Your task to perform on an android device: turn off location Image 0: 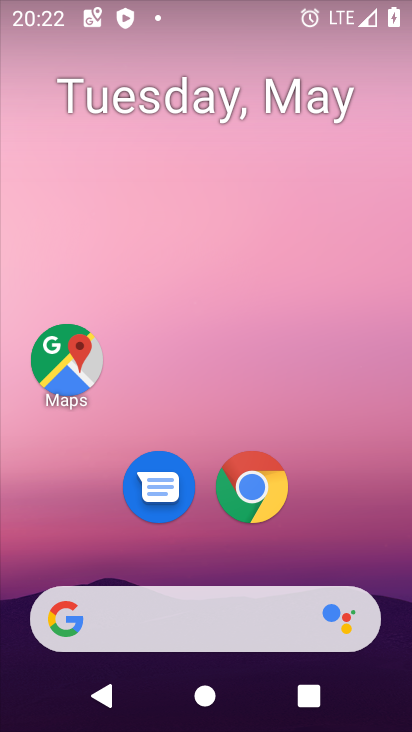
Step 0: drag from (349, 496) to (196, 45)
Your task to perform on an android device: turn off location Image 1: 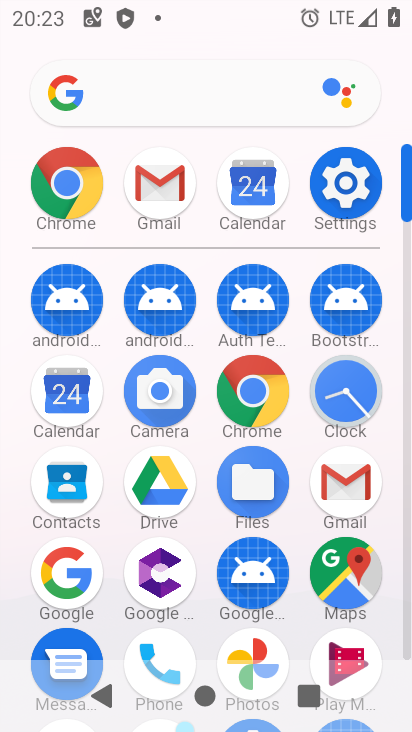
Step 1: click (338, 178)
Your task to perform on an android device: turn off location Image 2: 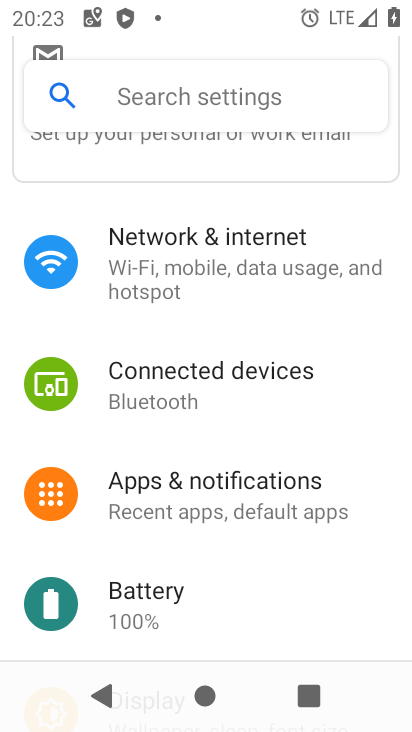
Step 2: drag from (170, 562) to (140, 215)
Your task to perform on an android device: turn off location Image 3: 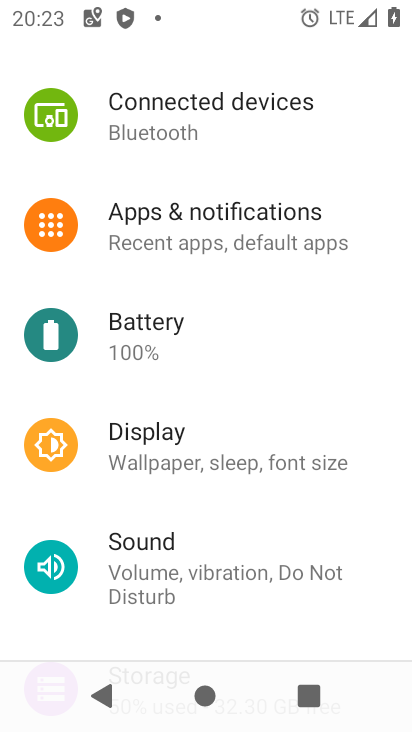
Step 3: drag from (251, 496) to (152, 41)
Your task to perform on an android device: turn off location Image 4: 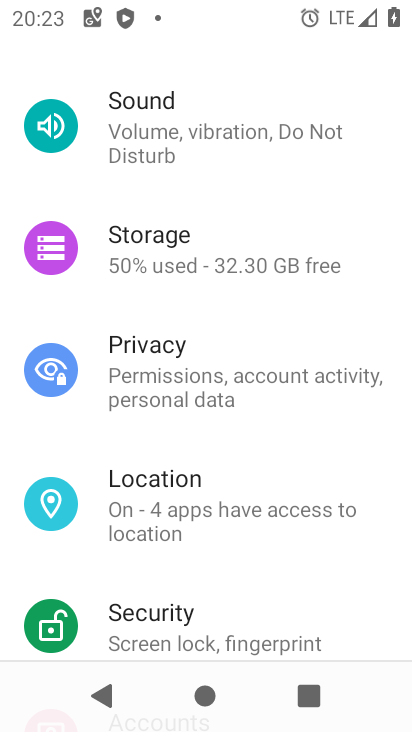
Step 4: click (161, 484)
Your task to perform on an android device: turn off location Image 5: 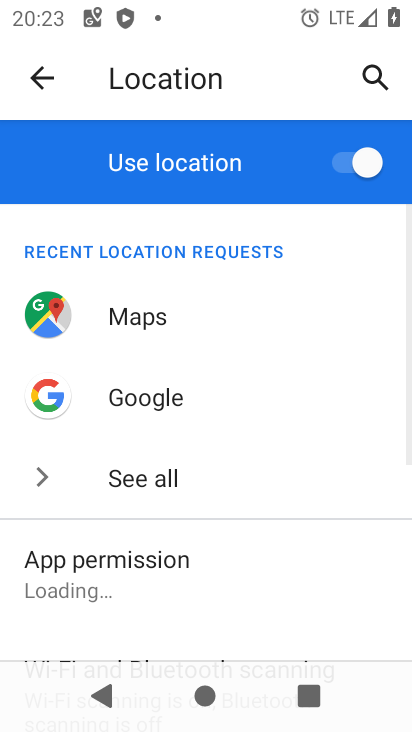
Step 5: click (334, 151)
Your task to perform on an android device: turn off location Image 6: 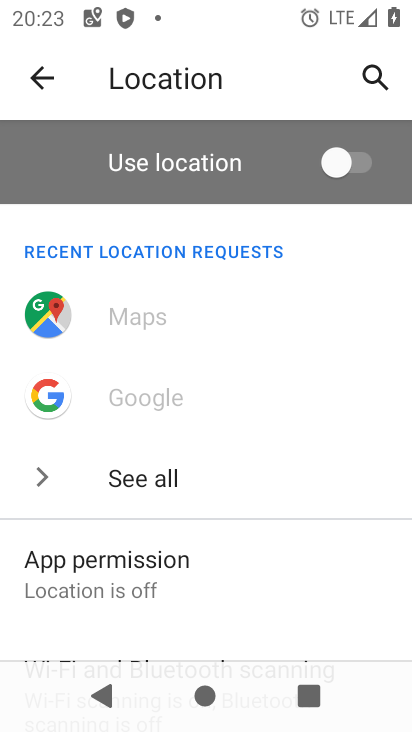
Step 6: task complete